Your task to perform on an android device: turn on bluetooth scan Image 0: 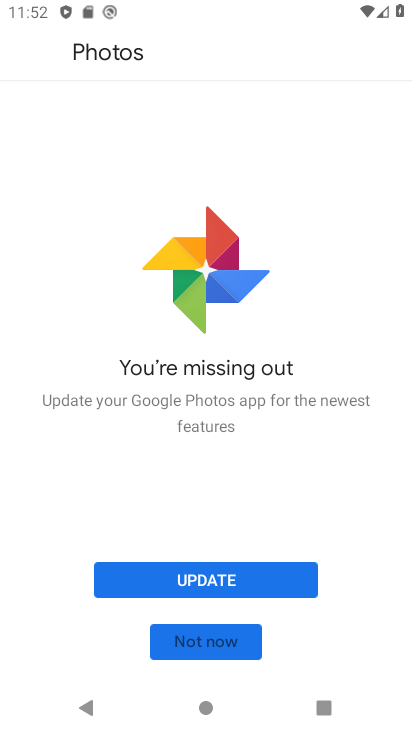
Step 0: press home button
Your task to perform on an android device: turn on bluetooth scan Image 1: 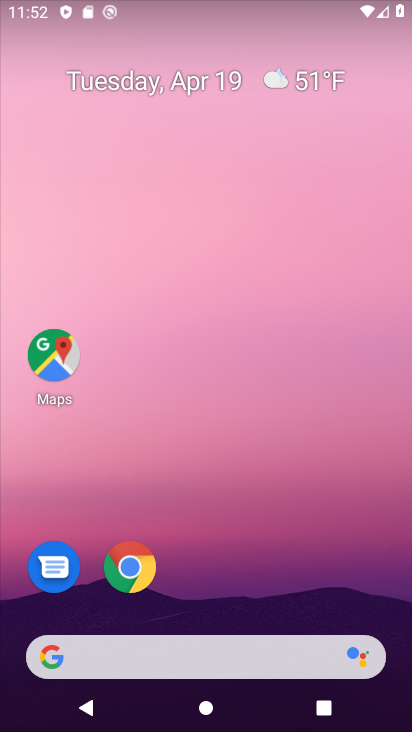
Step 1: drag from (199, 571) to (286, 12)
Your task to perform on an android device: turn on bluetooth scan Image 2: 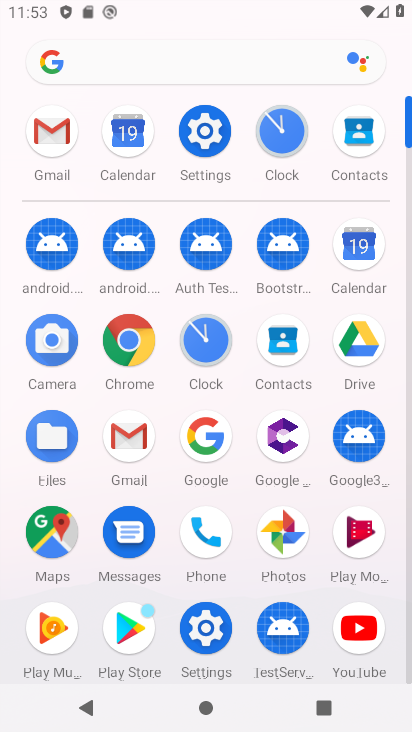
Step 2: click (194, 161)
Your task to perform on an android device: turn on bluetooth scan Image 3: 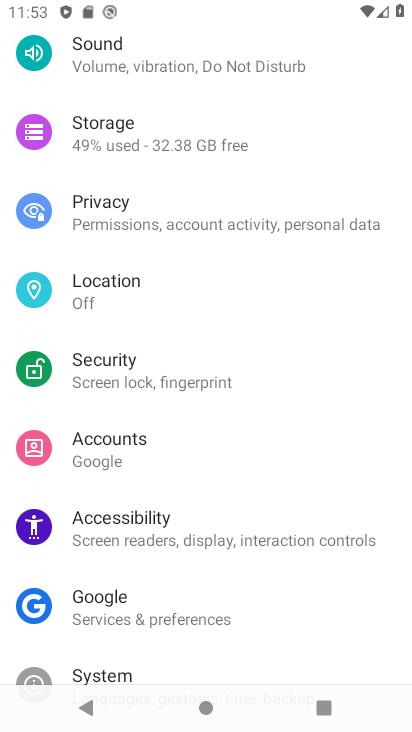
Step 3: click (121, 289)
Your task to perform on an android device: turn on bluetooth scan Image 4: 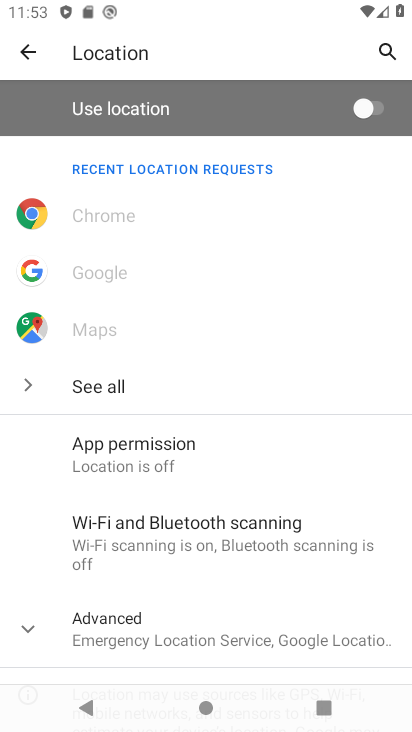
Step 4: click (120, 286)
Your task to perform on an android device: turn on bluetooth scan Image 5: 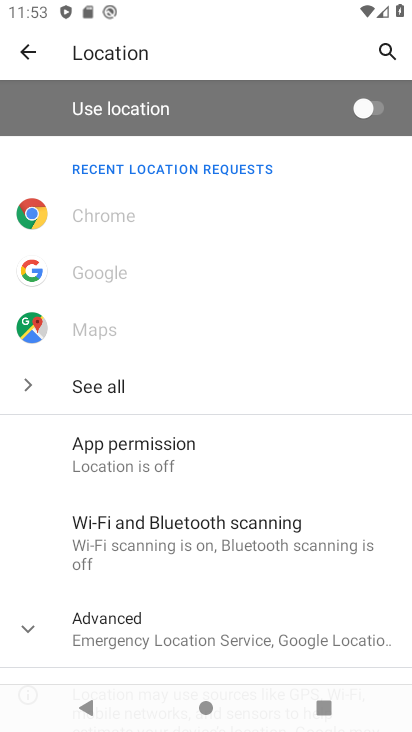
Step 5: click (173, 545)
Your task to perform on an android device: turn on bluetooth scan Image 6: 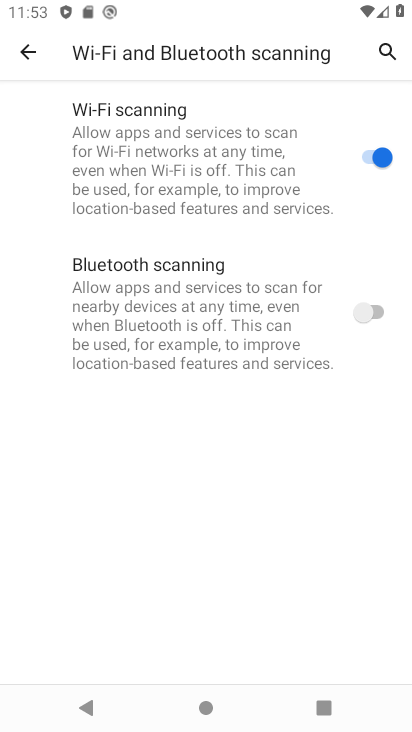
Step 6: click (367, 312)
Your task to perform on an android device: turn on bluetooth scan Image 7: 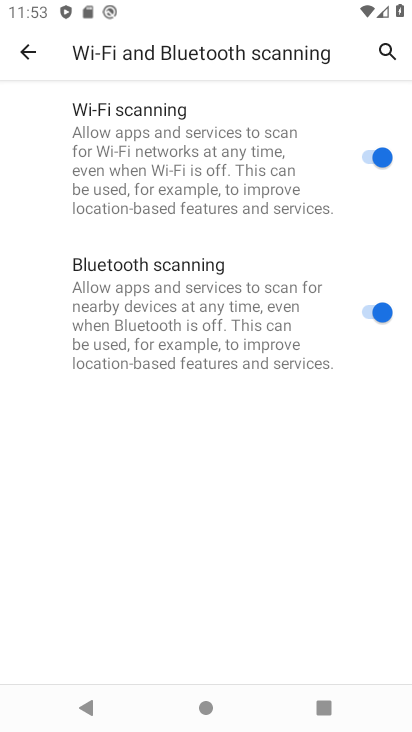
Step 7: task complete